Your task to perform on an android device: toggle airplane mode Image 0: 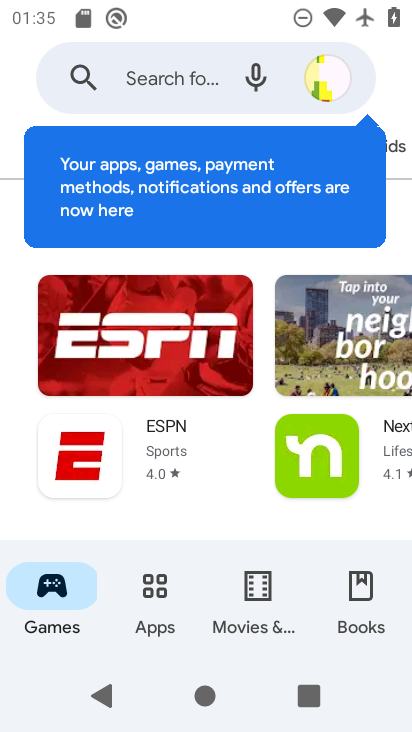
Step 0: press home button
Your task to perform on an android device: toggle airplane mode Image 1: 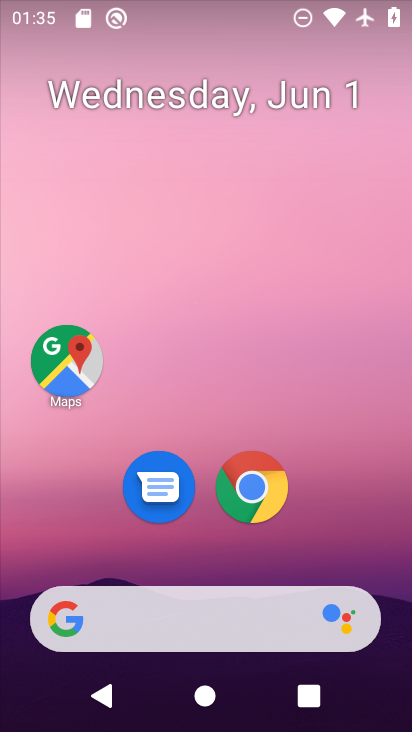
Step 1: drag from (209, 570) to (194, 265)
Your task to perform on an android device: toggle airplane mode Image 2: 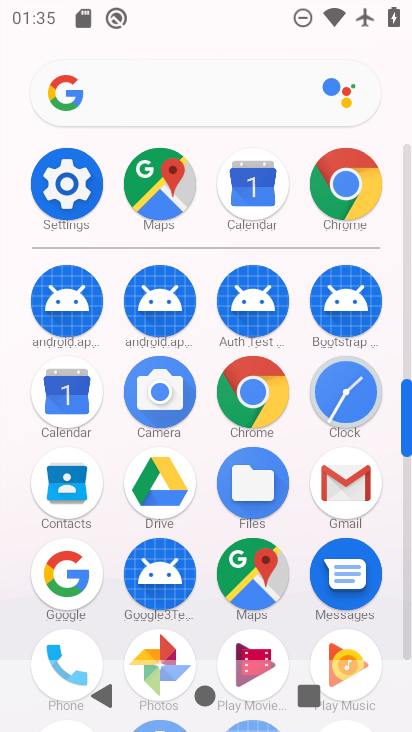
Step 2: click (57, 185)
Your task to perform on an android device: toggle airplane mode Image 3: 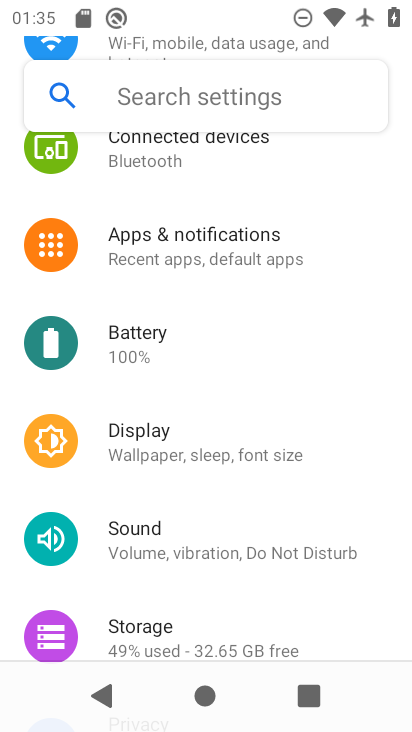
Step 3: drag from (143, 174) to (172, 475)
Your task to perform on an android device: toggle airplane mode Image 4: 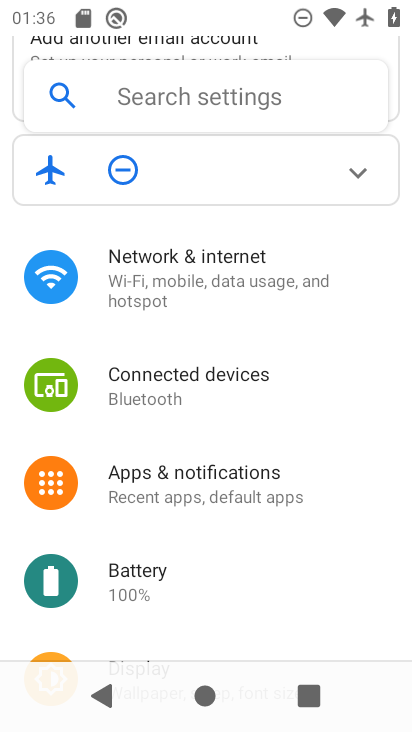
Step 4: click (219, 274)
Your task to perform on an android device: toggle airplane mode Image 5: 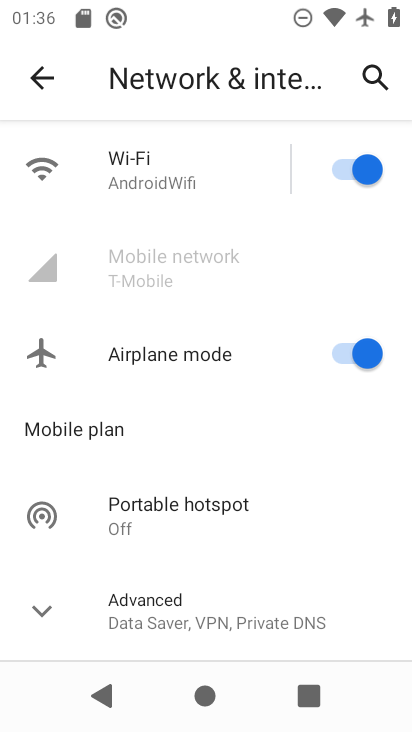
Step 5: click (331, 348)
Your task to perform on an android device: toggle airplane mode Image 6: 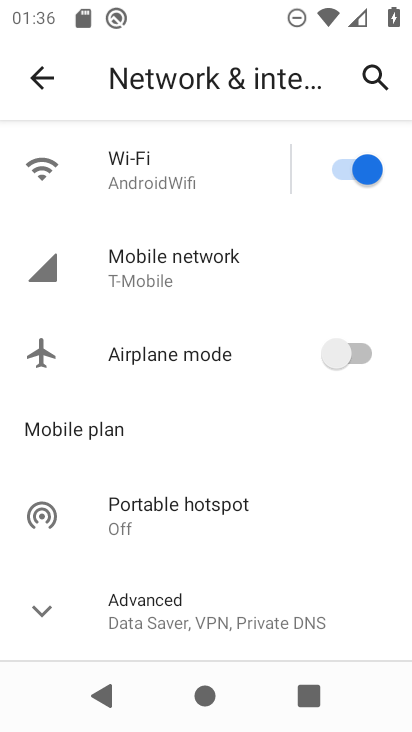
Step 6: task complete